Your task to perform on an android device: delete the emails in spam in the gmail app Image 0: 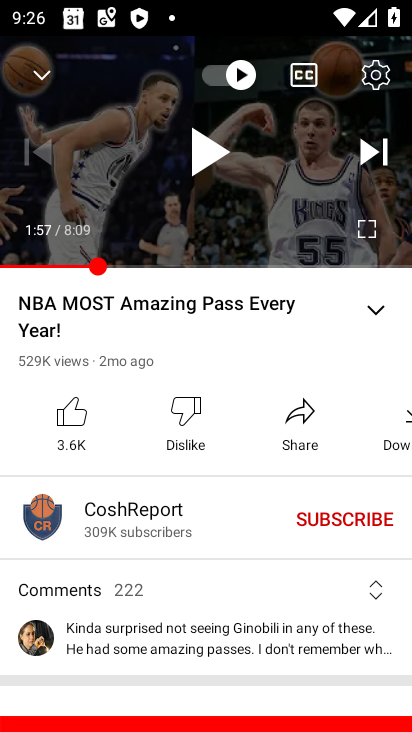
Step 0: press home button
Your task to perform on an android device: delete the emails in spam in the gmail app Image 1: 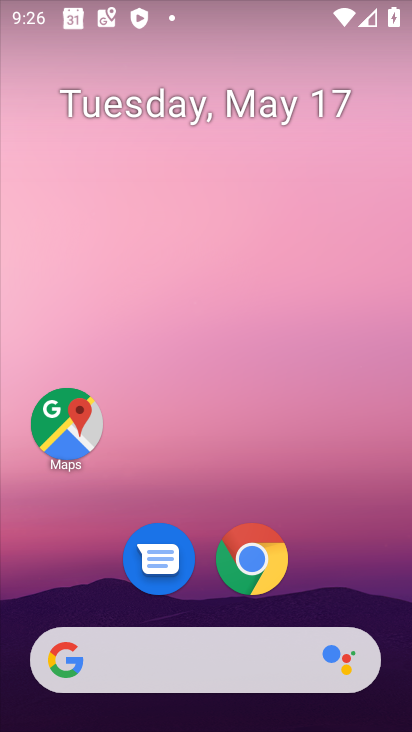
Step 1: drag from (146, 717) to (244, 183)
Your task to perform on an android device: delete the emails in spam in the gmail app Image 2: 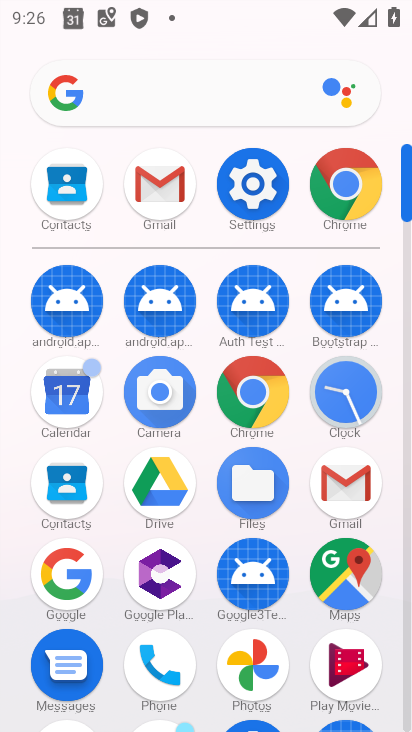
Step 2: click (157, 171)
Your task to perform on an android device: delete the emails in spam in the gmail app Image 3: 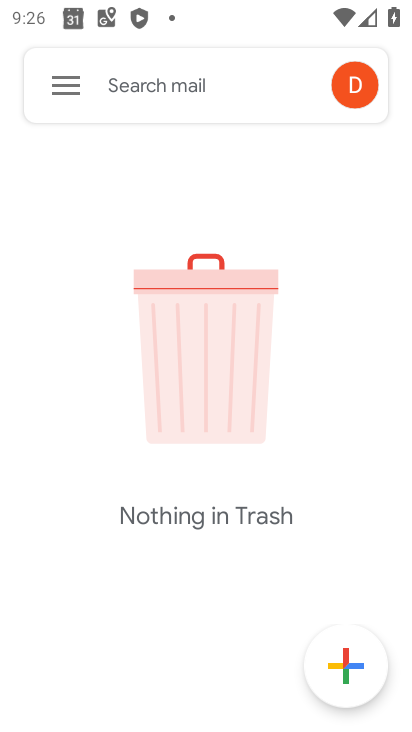
Step 3: click (72, 81)
Your task to perform on an android device: delete the emails in spam in the gmail app Image 4: 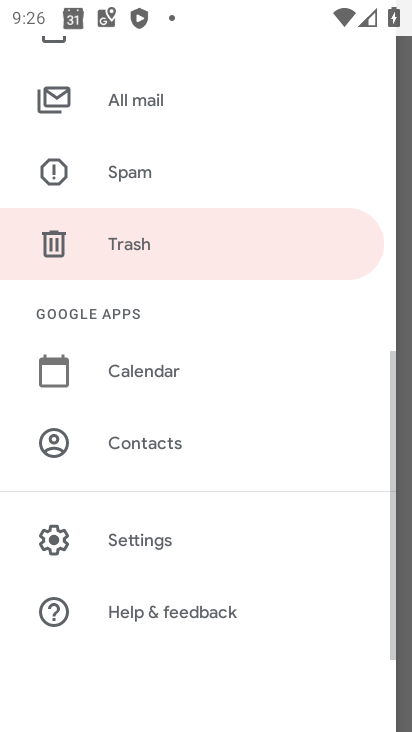
Step 4: click (166, 101)
Your task to perform on an android device: delete the emails in spam in the gmail app Image 5: 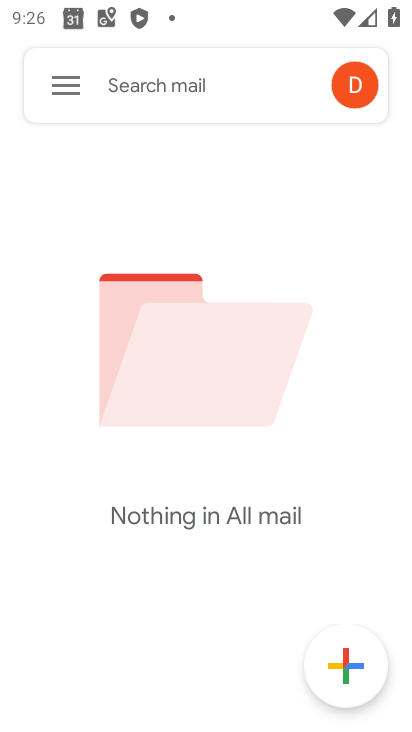
Step 5: task complete